Your task to perform on an android device: turn off picture-in-picture Image 0: 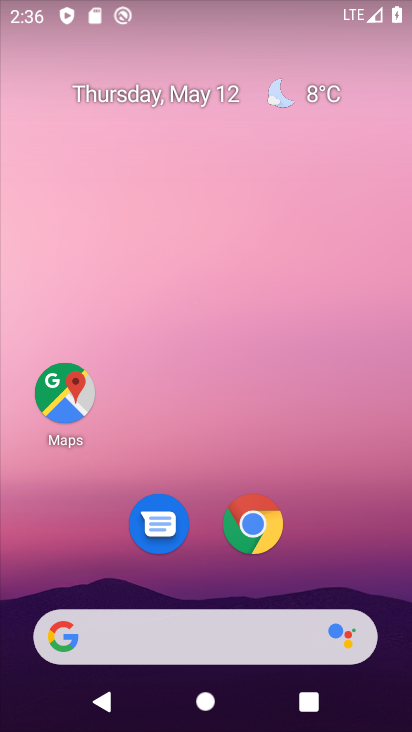
Step 0: click (260, 508)
Your task to perform on an android device: turn off picture-in-picture Image 1: 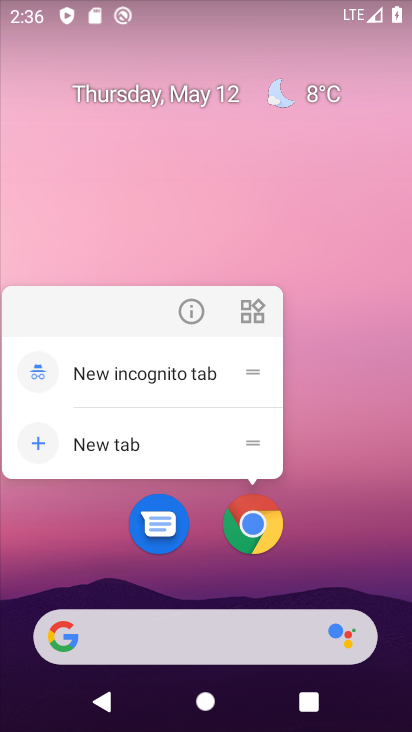
Step 1: click (183, 309)
Your task to perform on an android device: turn off picture-in-picture Image 2: 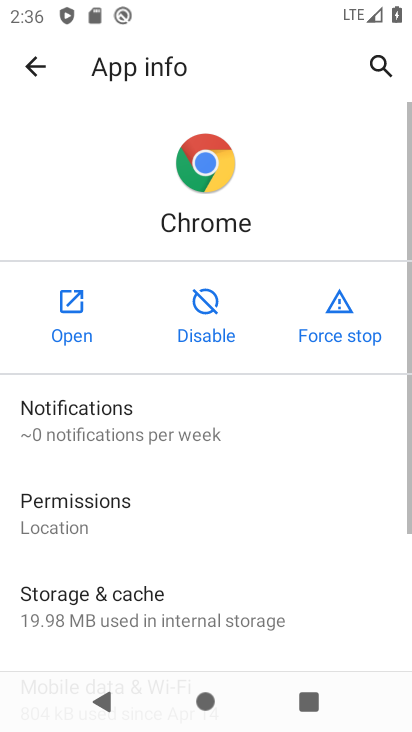
Step 2: drag from (237, 535) to (320, 196)
Your task to perform on an android device: turn off picture-in-picture Image 3: 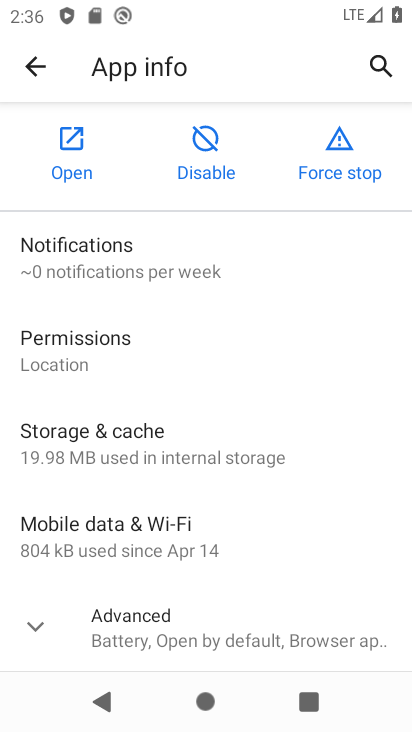
Step 3: click (34, 627)
Your task to perform on an android device: turn off picture-in-picture Image 4: 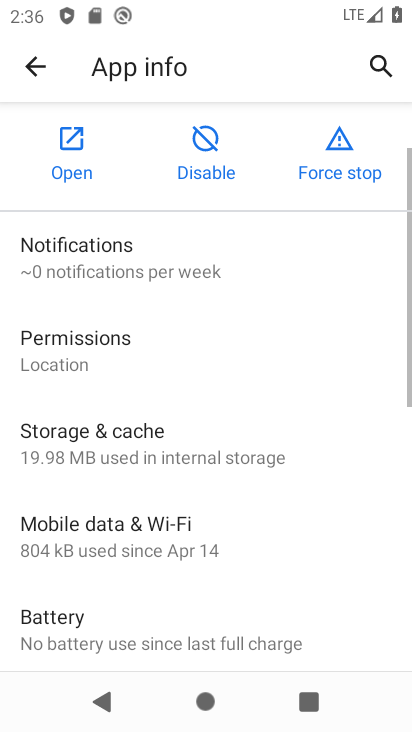
Step 4: drag from (241, 606) to (330, 186)
Your task to perform on an android device: turn off picture-in-picture Image 5: 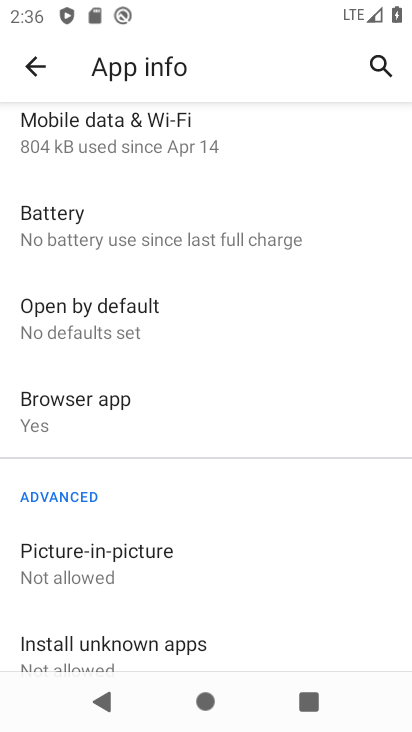
Step 5: click (116, 565)
Your task to perform on an android device: turn off picture-in-picture Image 6: 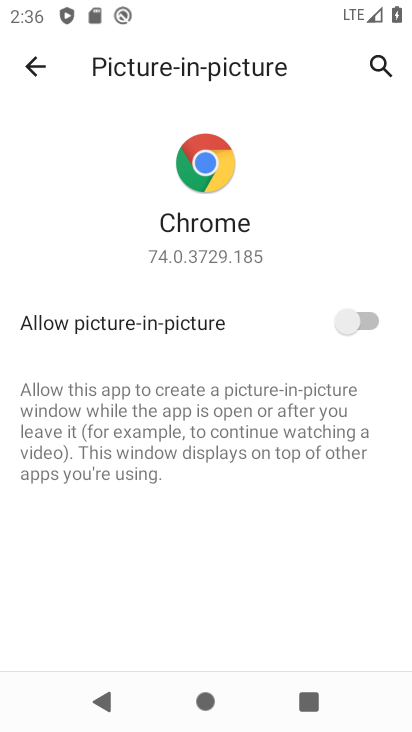
Step 6: task complete